Your task to perform on an android device: Open Google Chrome Image 0: 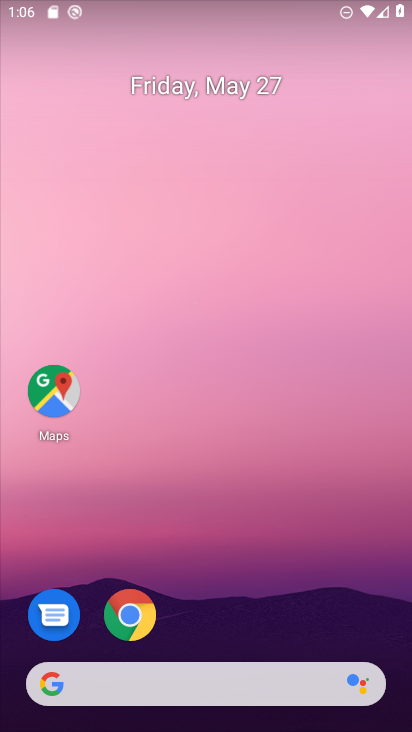
Step 0: drag from (250, 605) to (276, 101)
Your task to perform on an android device: Open Google Chrome Image 1: 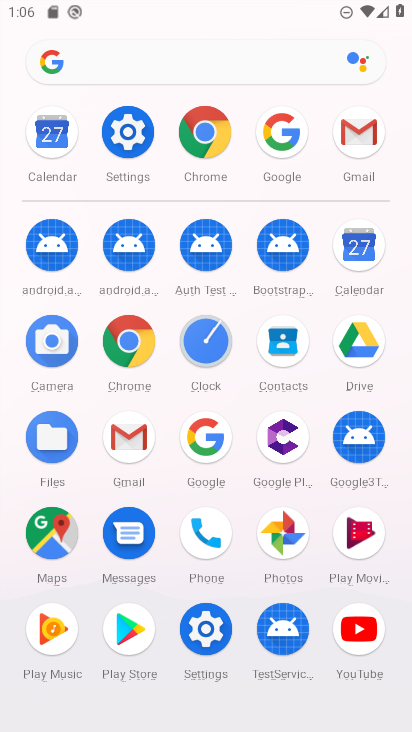
Step 1: click (135, 355)
Your task to perform on an android device: Open Google Chrome Image 2: 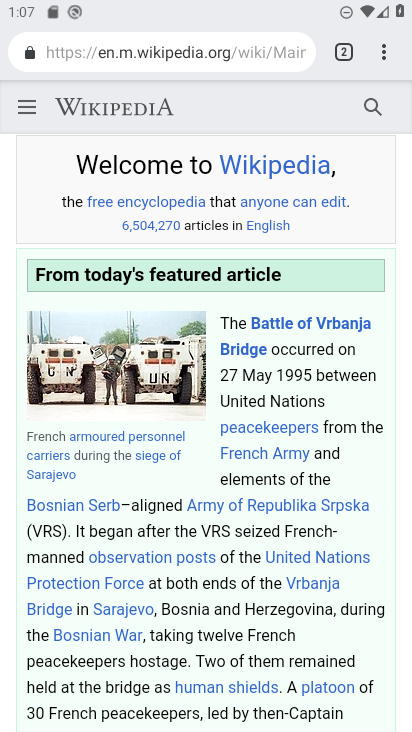
Step 2: task complete